Your task to perform on an android device: turn off data saver in the chrome app Image 0: 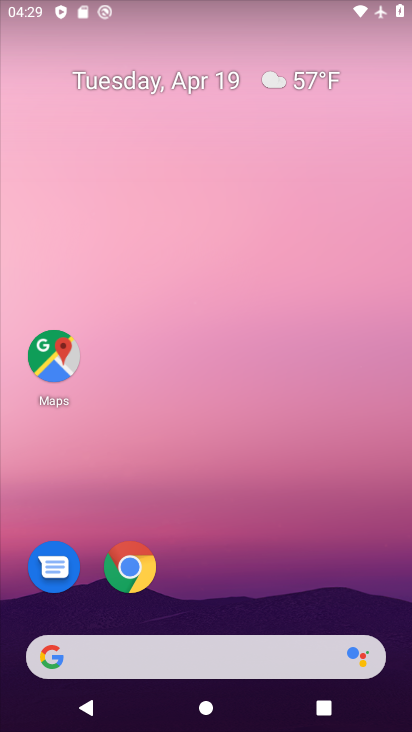
Step 0: drag from (382, 565) to (370, 126)
Your task to perform on an android device: turn off data saver in the chrome app Image 1: 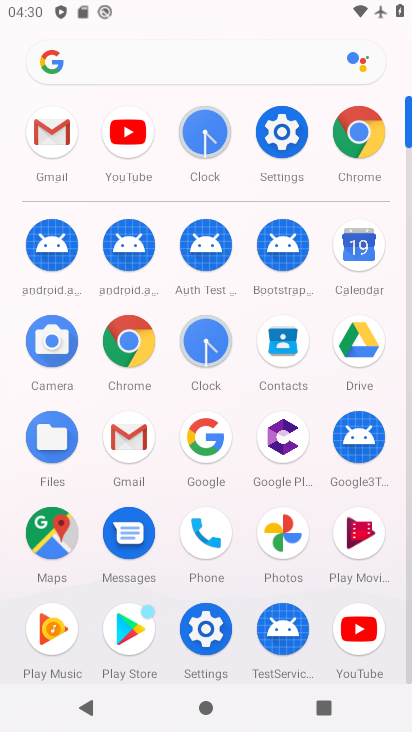
Step 1: click (142, 351)
Your task to perform on an android device: turn off data saver in the chrome app Image 2: 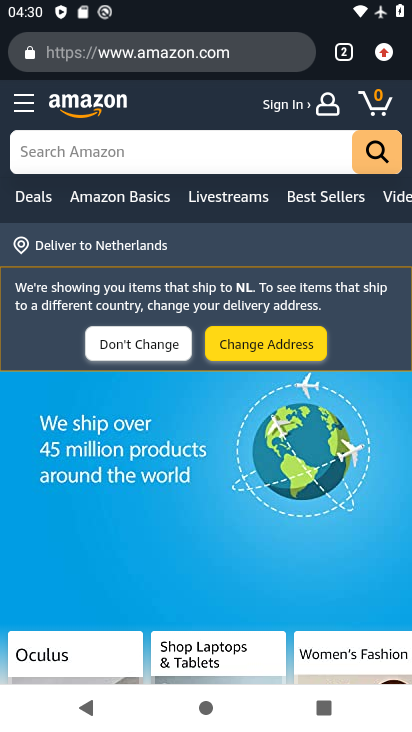
Step 2: click (380, 53)
Your task to perform on an android device: turn off data saver in the chrome app Image 3: 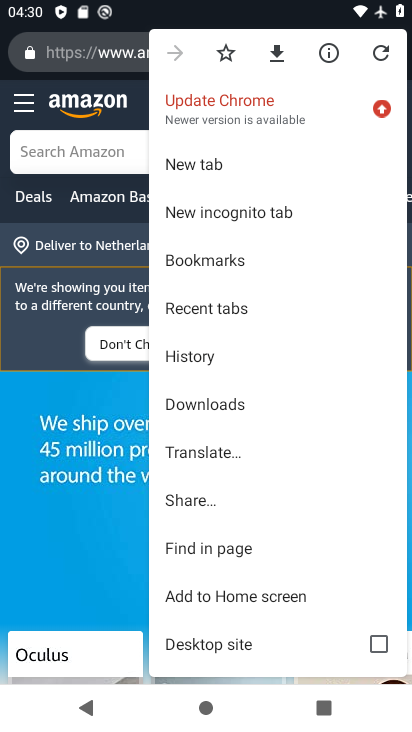
Step 3: drag from (359, 552) to (366, 414)
Your task to perform on an android device: turn off data saver in the chrome app Image 4: 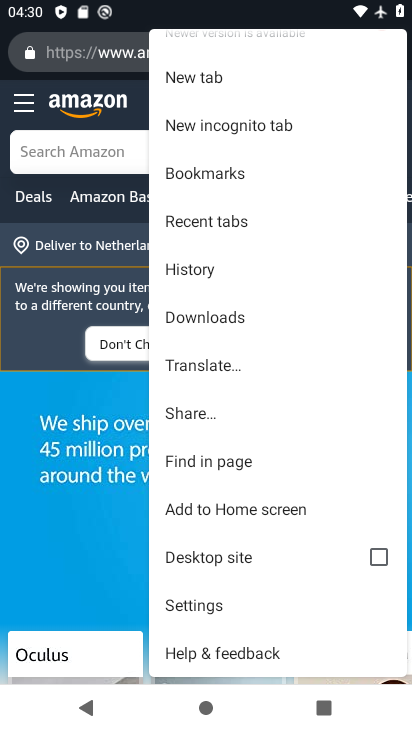
Step 4: drag from (325, 580) to (342, 434)
Your task to perform on an android device: turn off data saver in the chrome app Image 5: 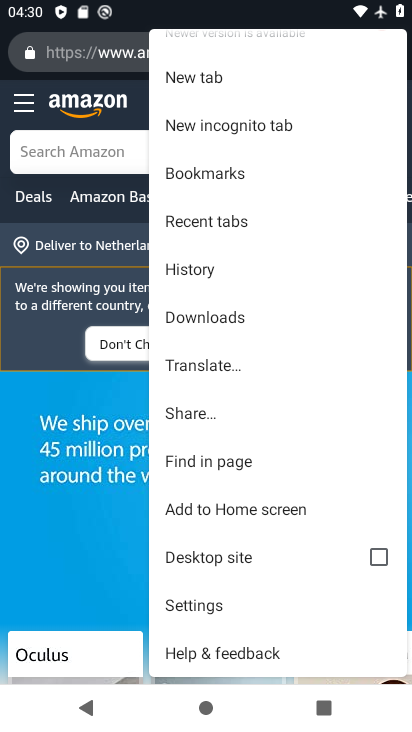
Step 5: click (212, 605)
Your task to perform on an android device: turn off data saver in the chrome app Image 6: 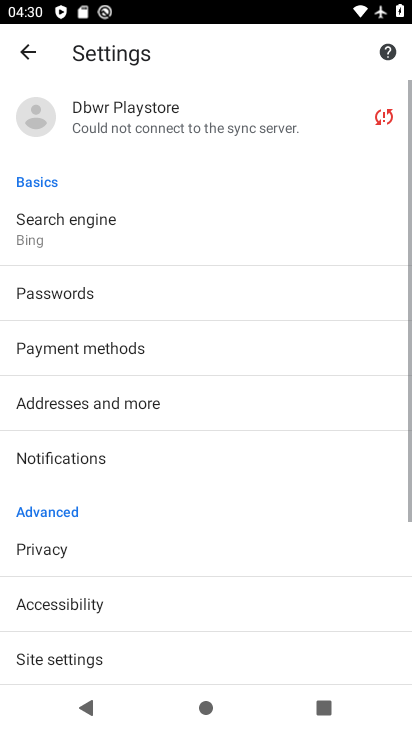
Step 6: drag from (287, 604) to (304, 496)
Your task to perform on an android device: turn off data saver in the chrome app Image 7: 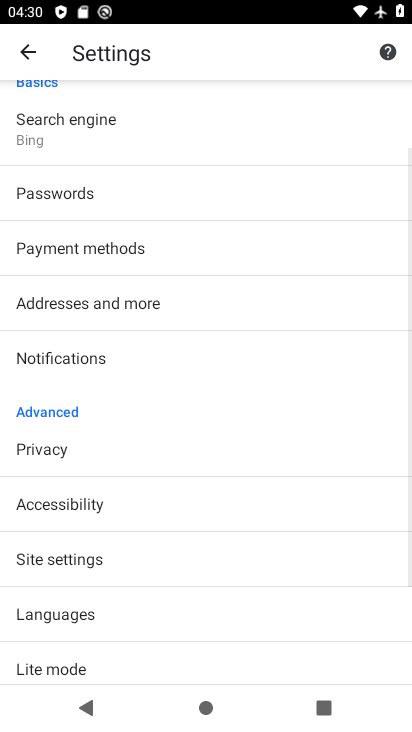
Step 7: drag from (311, 613) to (330, 464)
Your task to perform on an android device: turn off data saver in the chrome app Image 8: 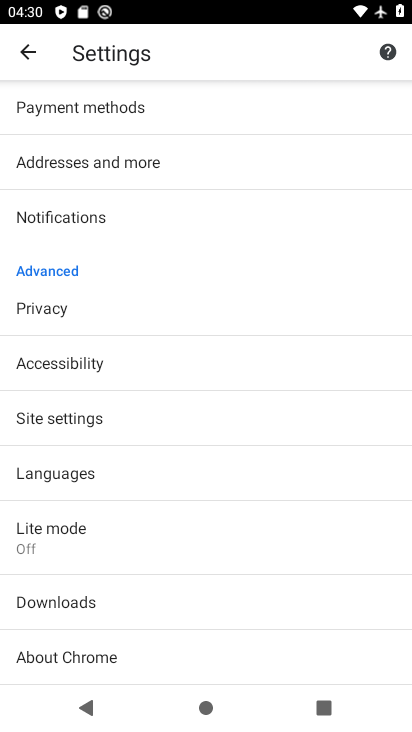
Step 8: drag from (331, 597) to (335, 459)
Your task to perform on an android device: turn off data saver in the chrome app Image 9: 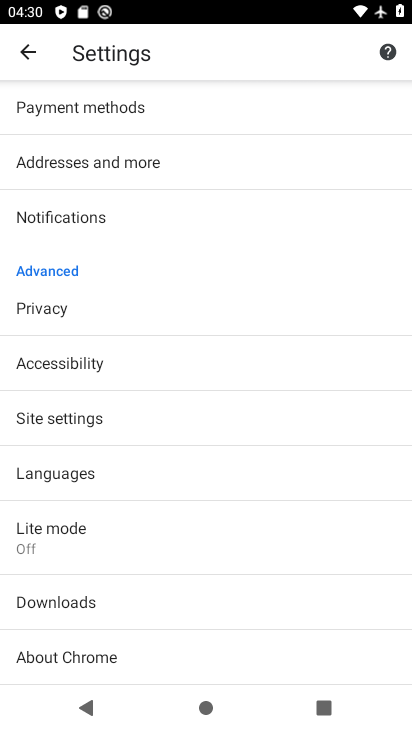
Step 9: drag from (347, 390) to (346, 477)
Your task to perform on an android device: turn off data saver in the chrome app Image 10: 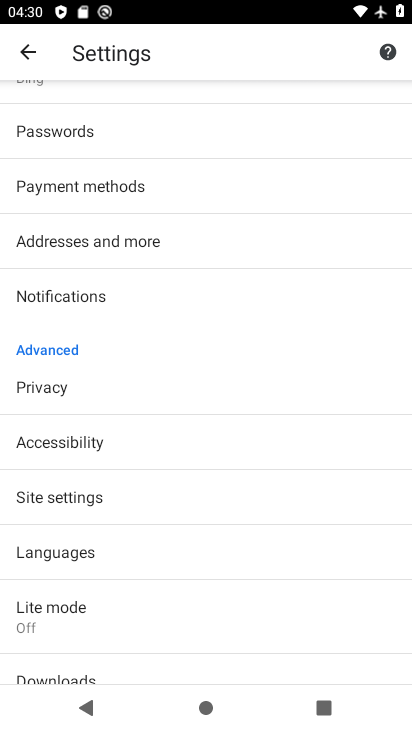
Step 10: drag from (333, 360) to (332, 450)
Your task to perform on an android device: turn off data saver in the chrome app Image 11: 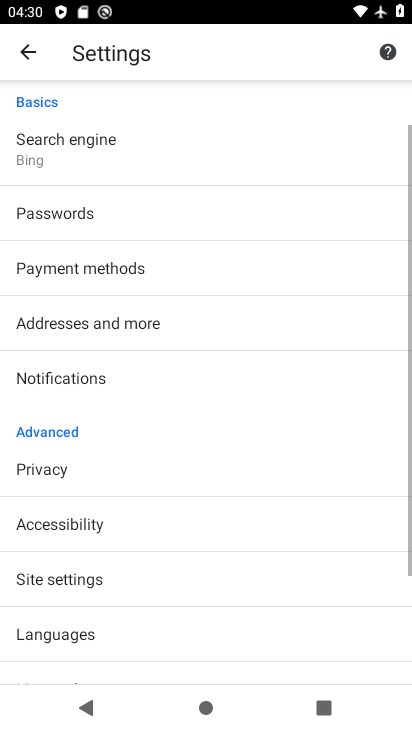
Step 11: drag from (337, 330) to (339, 455)
Your task to perform on an android device: turn off data saver in the chrome app Image 12: 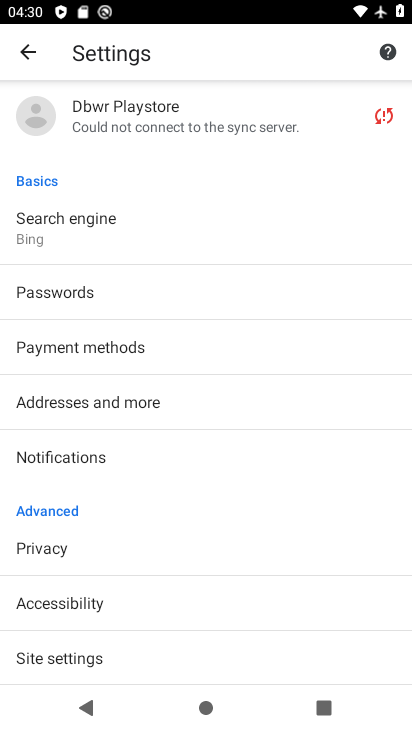
Step 12: drag from (348, 311) to (346, 430)
Your task to perform on an android device: turn off data saver in the chrome app Image 13: 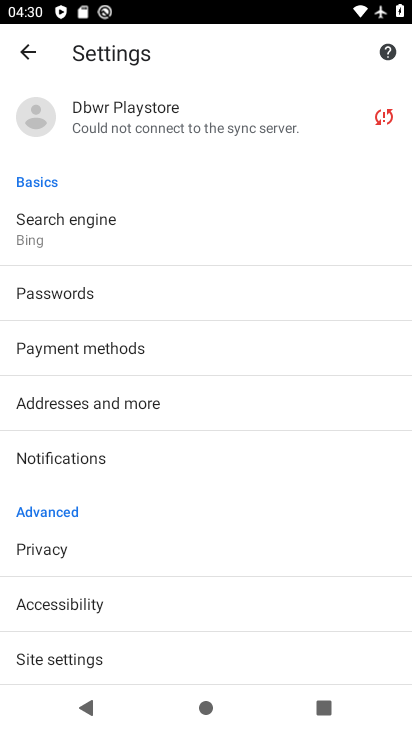
Step 13: drag from (310, 547) to (311, 450)
Your task to perform on an android device: turn off data saver in the chrome app Image 14: 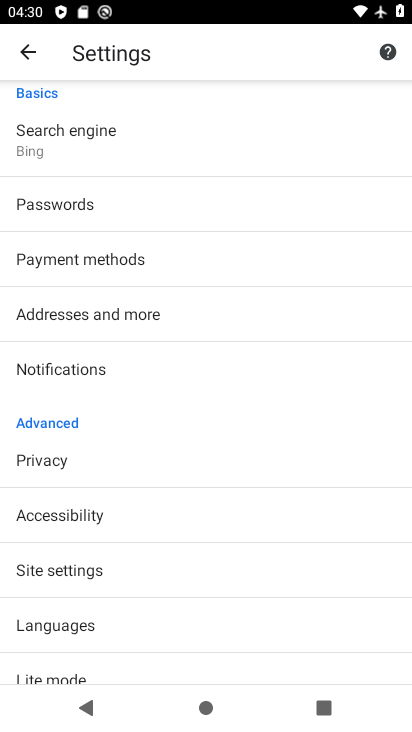
Step 14: drag from (290, 550) to (301, 420)
Your task to perform on an android device: turn off data saver in the chrome app Image 15: 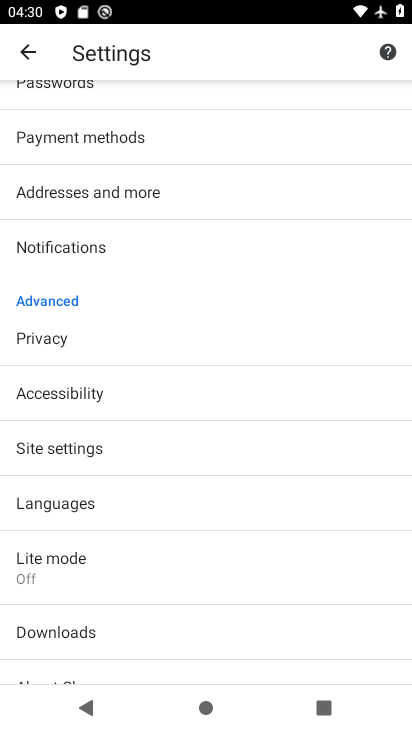
Step 15: drag from (285, 568) to (298, 438)
Your task to perform on an android device: turn off data saver in the chrome app Image 16: 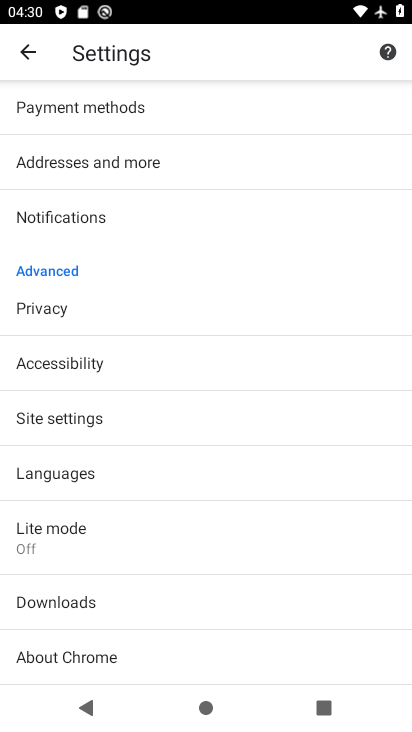
Step 16: click (253, 536)
Your task to perform on an android device: turn off data saver in the chrome app Image 17: 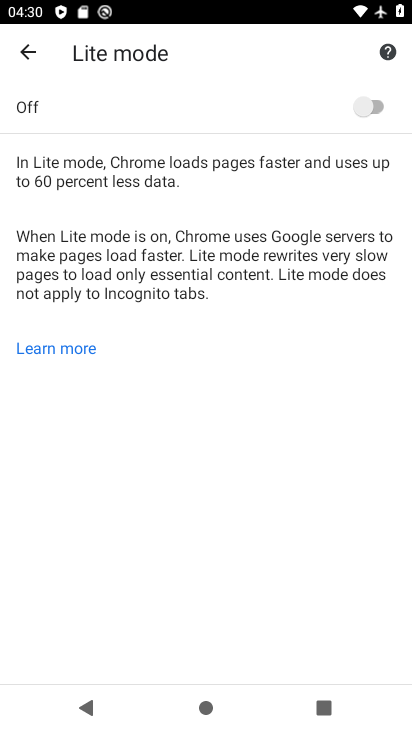
Step 17: task complete